Your task to perform on an android device: turn on bluetooth scan Image 0: 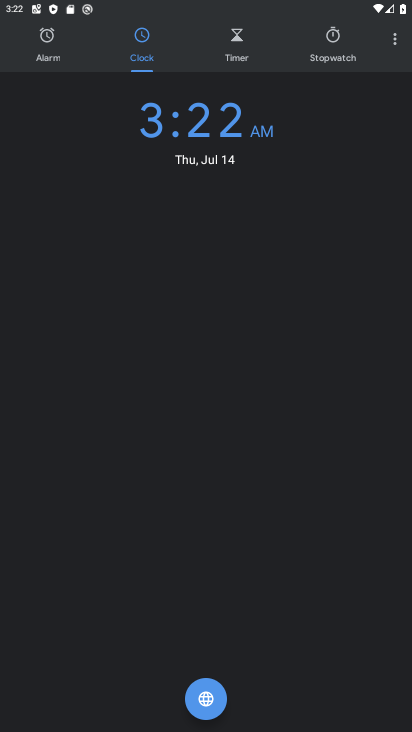
Step 0: press home button
Your task to perform on an android device: turn on bluetooth scan Image 1: 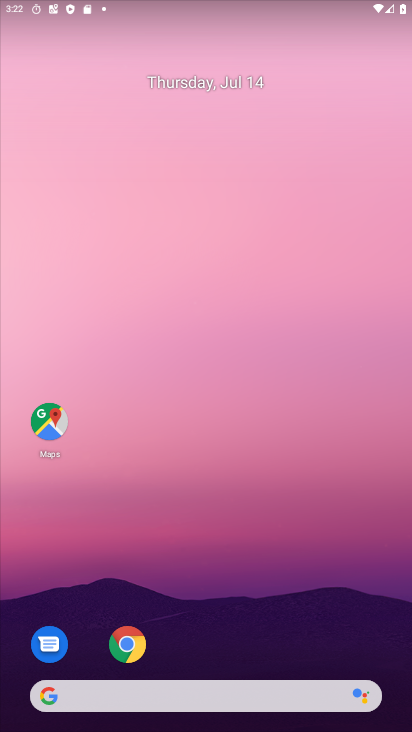
Step 1: drag from (36, 637) to (410, 49)
Your task to perform on an android device: turn on bluetooth scan Image 2: 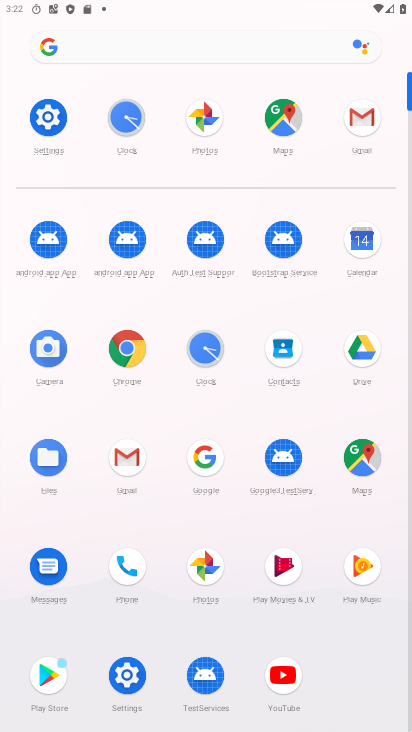
Step 2: click (142, 665)
Your task to perform on an android device: turn on bluetooth scan Image 3: 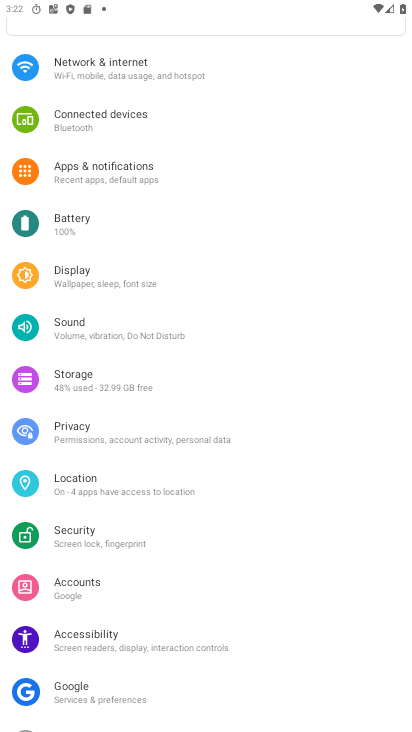
Step 3: click (129, 75)
Your task to perform on an android device: turn on bluetooth scan Image 4: 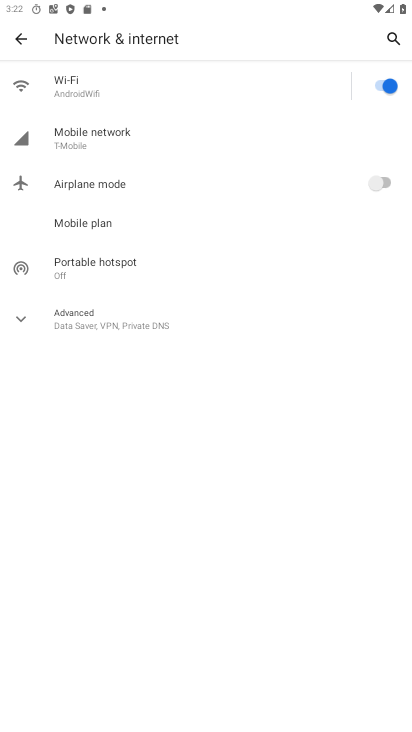
Step 4: click (102, 319)
Your task to perform on an android device: turn on bluetooth scan Image 5: 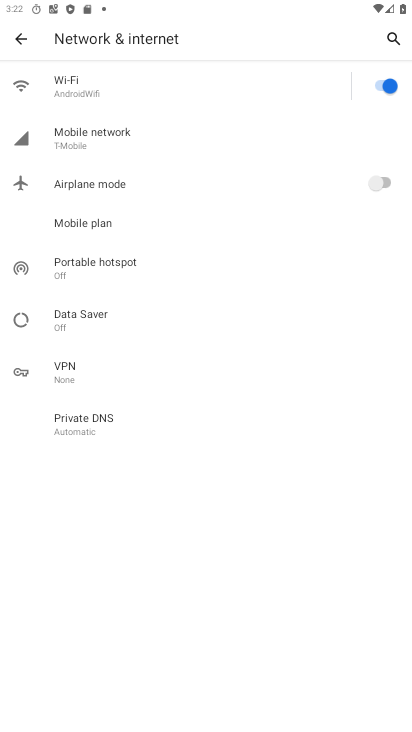
Step 5: task complete